Your task to perform on an android device: turn on notifications settings in the gmail app Image 0: 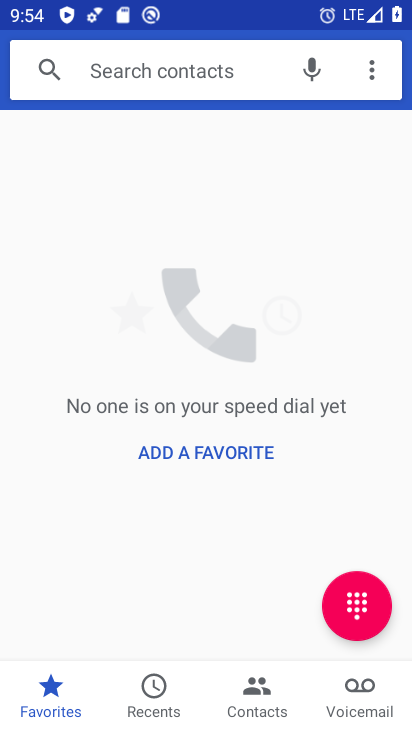
Step 0: press home button
Your task to perform on an android device: turn on notifications settings in the gmail app Image 1: 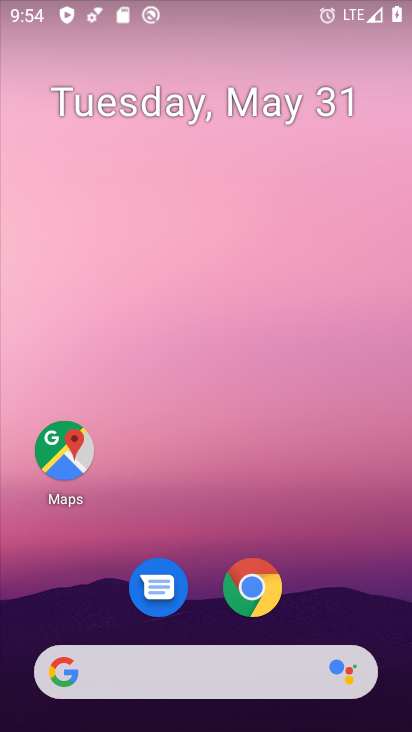
Step 1: drag from (346, 587) to (354, 187)
Your task to perform on an android device: turn on notifications settings in the gmail app Image 2: 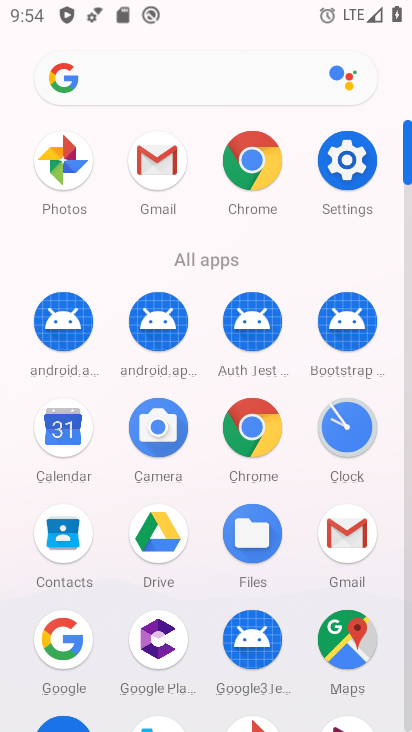
Step 2: click (352, 544)
Your task to perform on an android device: turn on notifications settings in the gmail app Image 3: 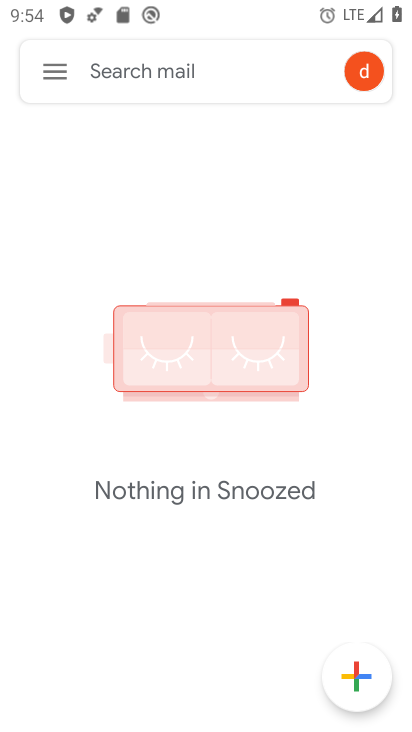
Step 3: click (58, 75)
Your task to perform on an android device: turn on notifications settings in the gmail app Image 4: 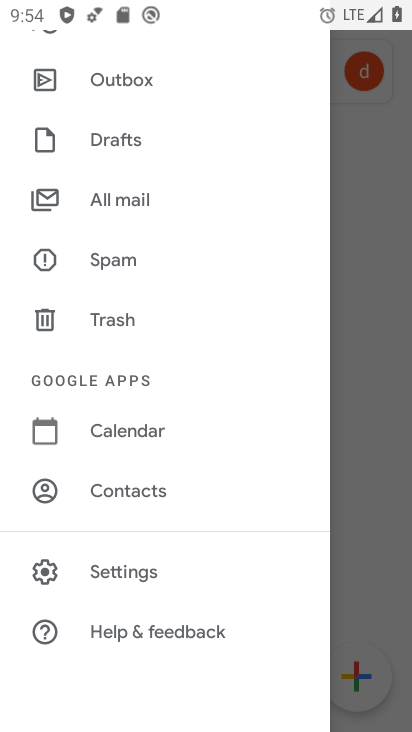
Step 4: drag from (258, 199) to (252, 300)
Your task to perform on an android device: turn on notifications settings in the gmail app Image 5: 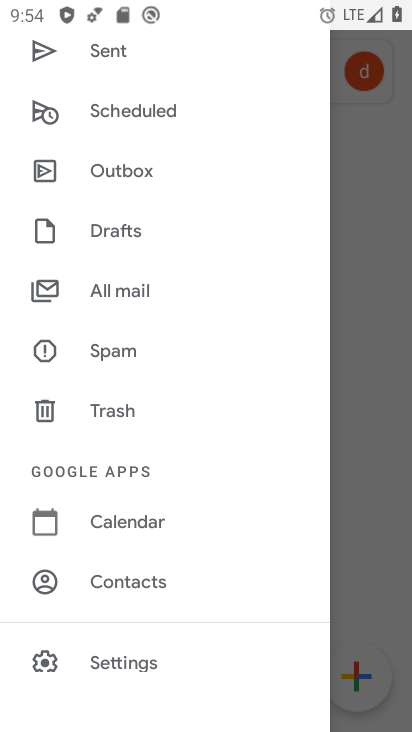
Step 5: drag from (249, 589) to (256, 439)
Your task to perform on an android device: turn on notifications settings in the gmail app Image 6: 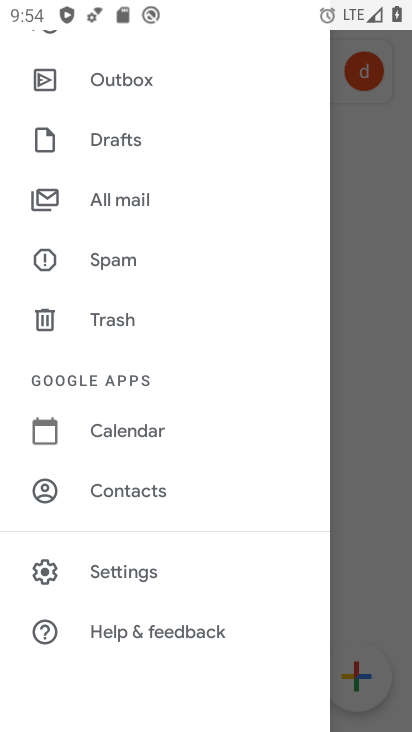
Step 6: click (158, 575)
Your task to perform on an android device: turn on notifications settings in the gmail app Image 7: 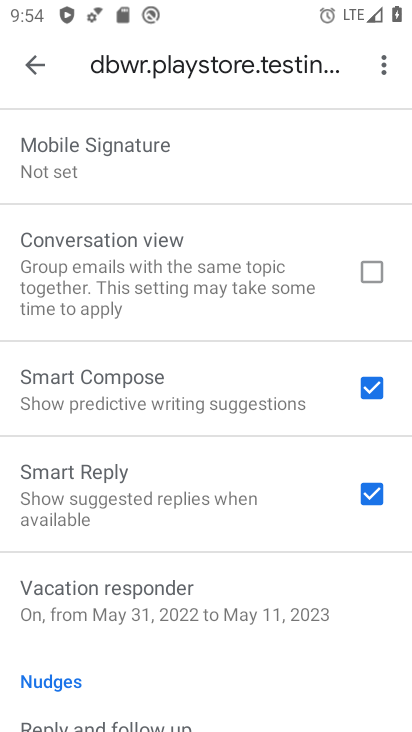
Step 7: drag from (303, 330) to (303, 425)
Your task to perform on an android device: turn on notifications settings in the gmail app Image 8: 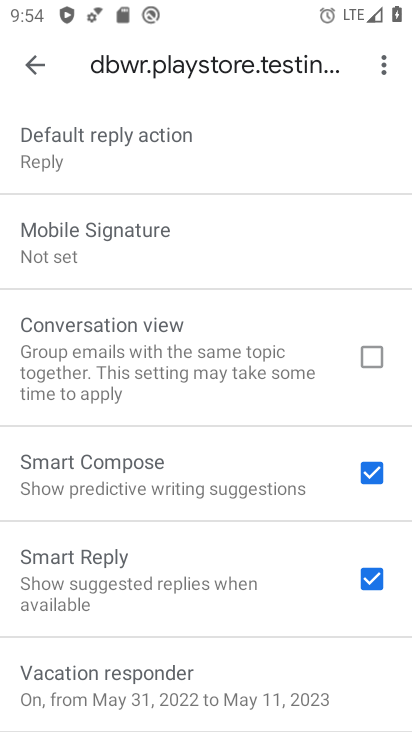
Step 8: drag from (308, 318) to (315, 431)
Your task to perform on an android device: turn on notifications settings in the gmail app Image 9: 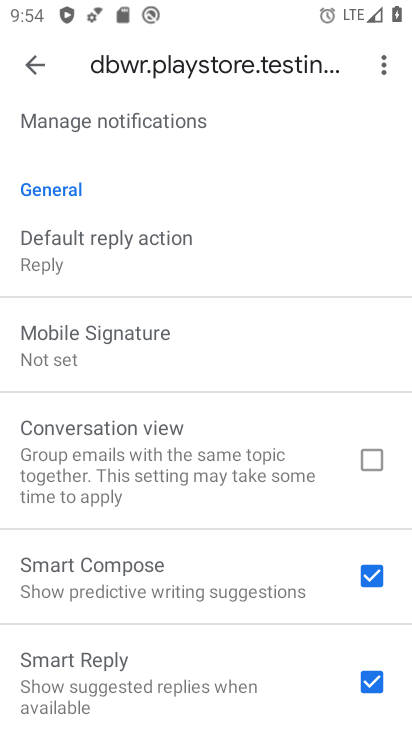
Step 9: drag from (303, 342) to (301, 452)
Your task to perform on an android device: turn on notifications settings in the gmail app Image 10: 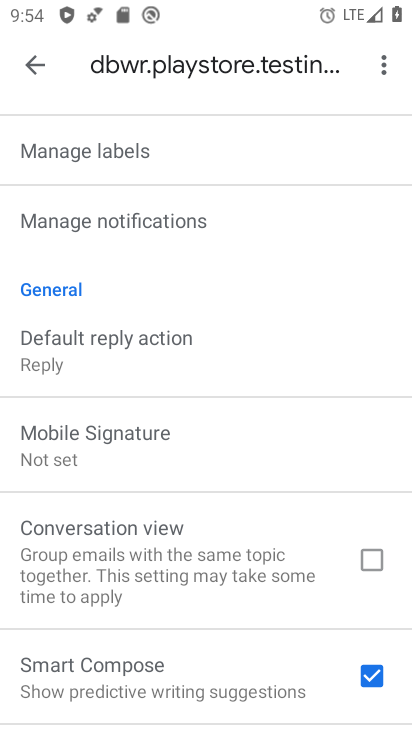
Step 10: drag from (298, 331) to (301, 438)
Your task to perform on an android device: turn on notifications settings in the gmail app Image 11: 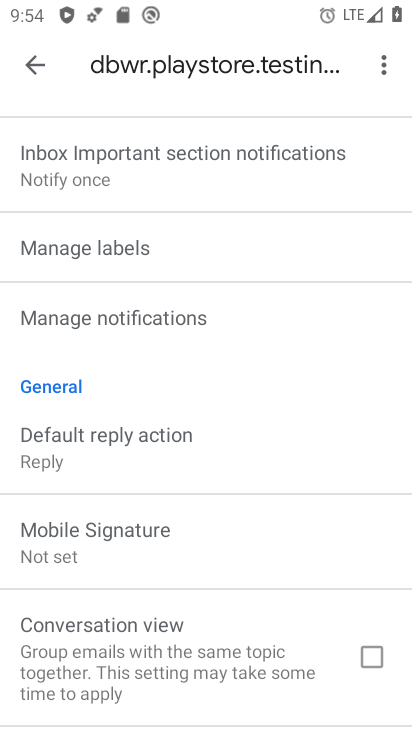
Step 11: drag from (288, 350) to (278, 483)
Your task to perform on an android device: turn on notifications settings in the gmail app Image 12: 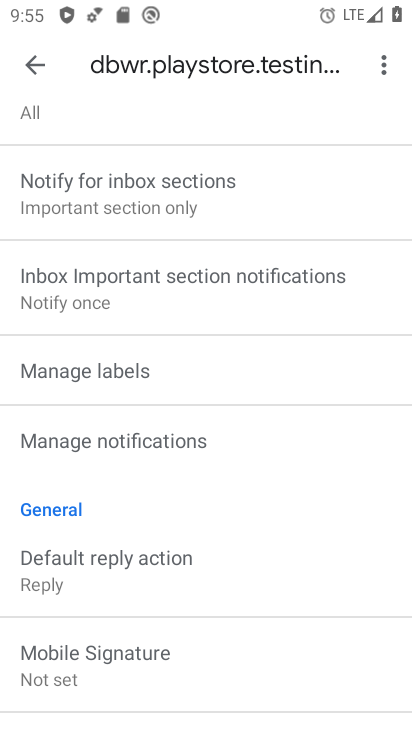
Step 12: click (210, 451)
Your task to perform on an android device: turn on notifications settings in the gmail app Image 13: 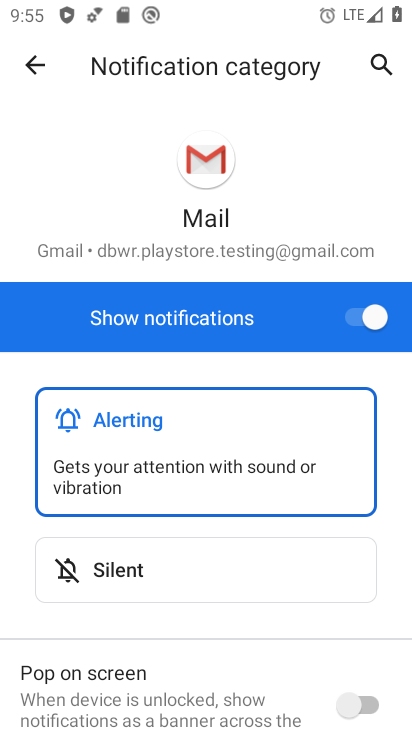
Step 13: task complete